Your task to perform on an android device: Find coffee shops on Maps Image 0: 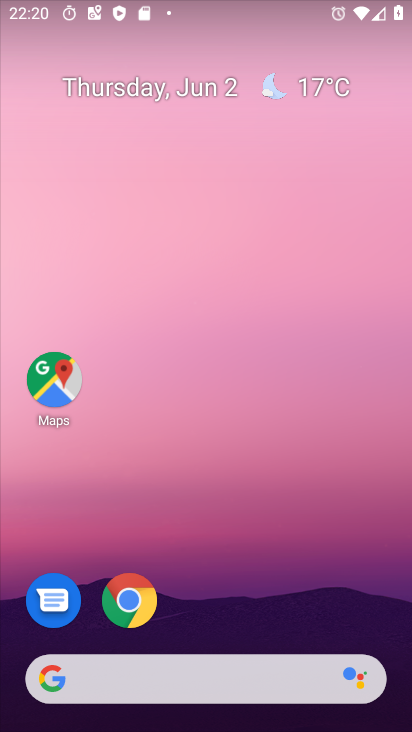
Step 0: drag from (362, 600) to (357, 143)
Your task to perform on an android device: Find coffee shops on Maps Image 1: 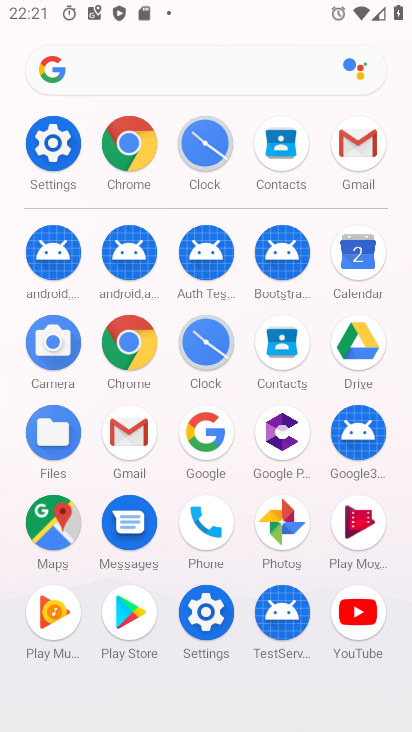
Step 1: click (62, 528)
Your task to perform on an android device: Find coffee shops on Maps Image 2: 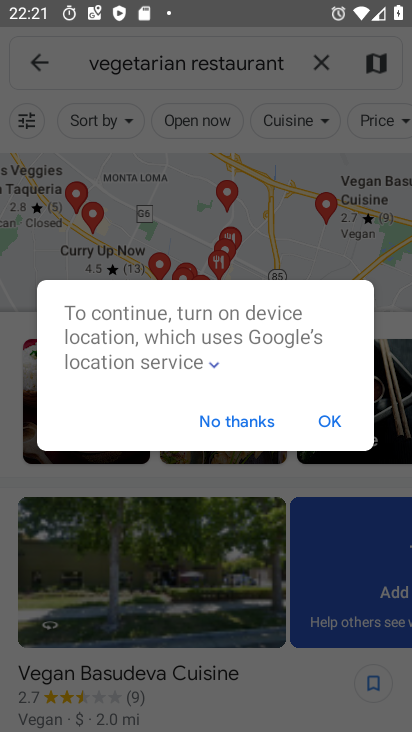
Step 2: click (331, 416)
Your task to perform on an android device: Find coffee shops on Maps Image 3: 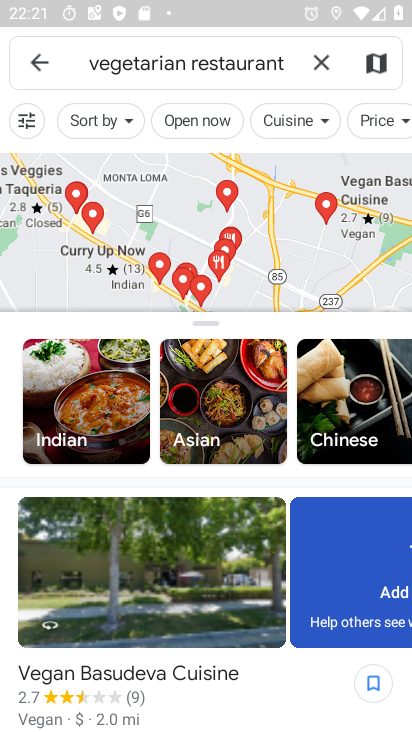
Step 3: click (315, 61)
Your task to perform on an android device: Find coffee shops on Maps Image 4: 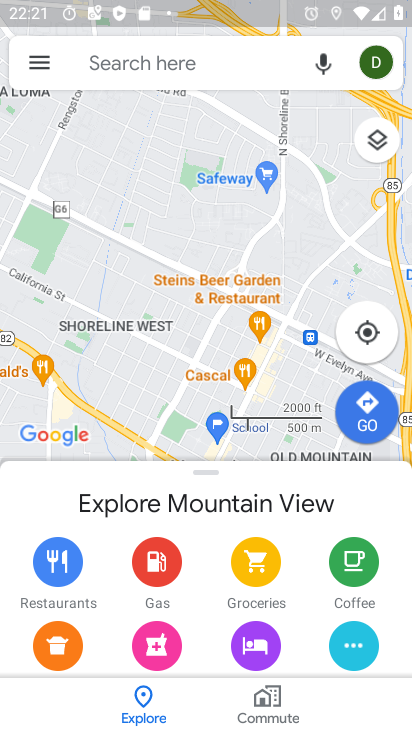
Step 4: click (216, 76)
Your task to perform on an android device: Find coffee shops on Maps Image 5: 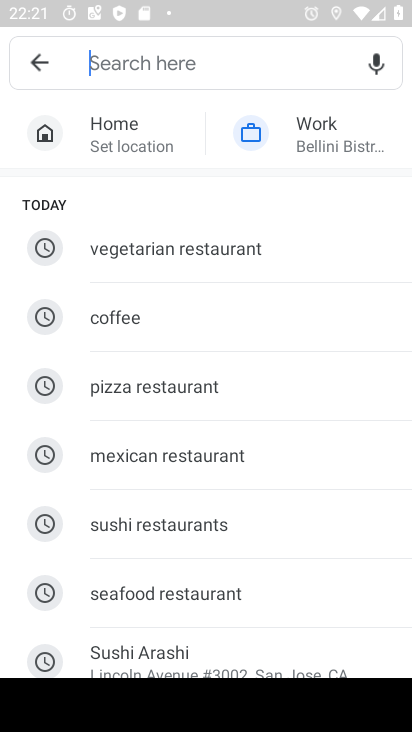
Step 5: type "coffee"
Your task to perform on an android device: Find coffee shops on Maps Image 6: 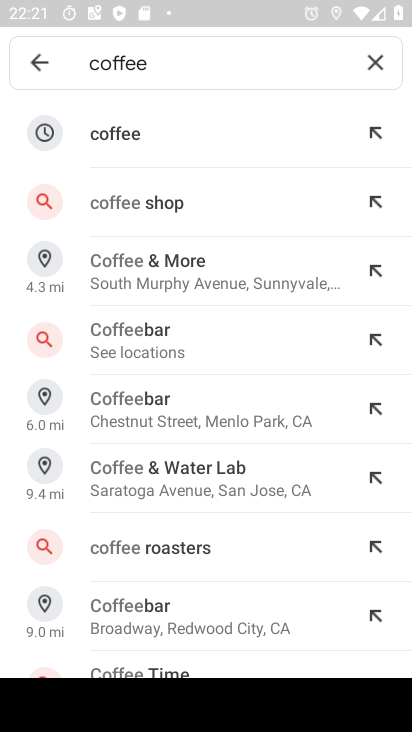
Step 6: click (115, 136)
Your task to perform on an android device: Find coffee shops on Maps Image 7: 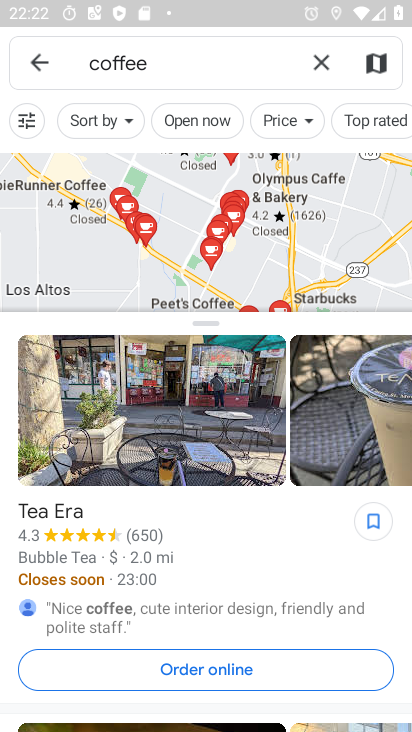
Step 7: task complete